Your task to perform on an android device: open the mobile data screen to see how much data has been used Image 0: 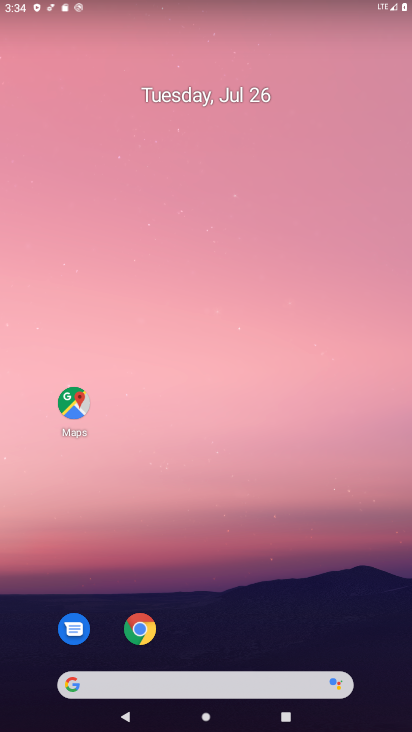
Step 0: drag from (216, 697) to (209, 248)
Your task to perform on an android device: open the mobile data screen to see how much data has been used Image 1: 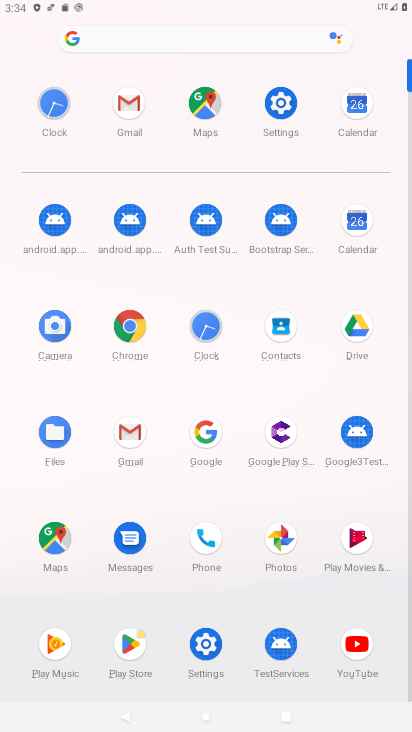
Step 1: click (293, 100)
Your task to perform on an android device: open the mobile data screen to see how much data has been used Image 2: 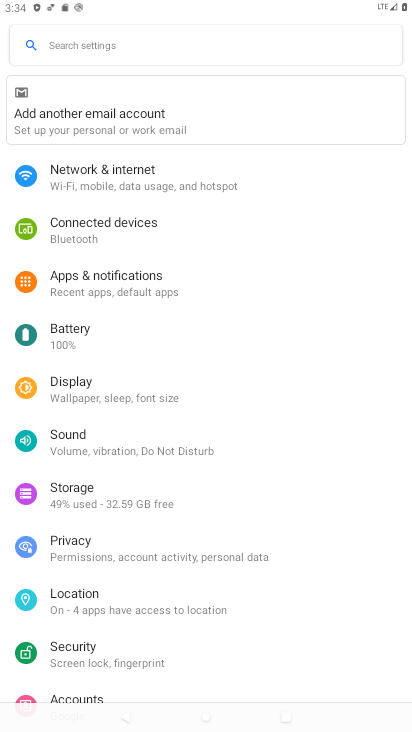
Step 2: click (83, 180)
Your task to perform on an android device: open the mobile data screen to see how much data has been used Image 3: 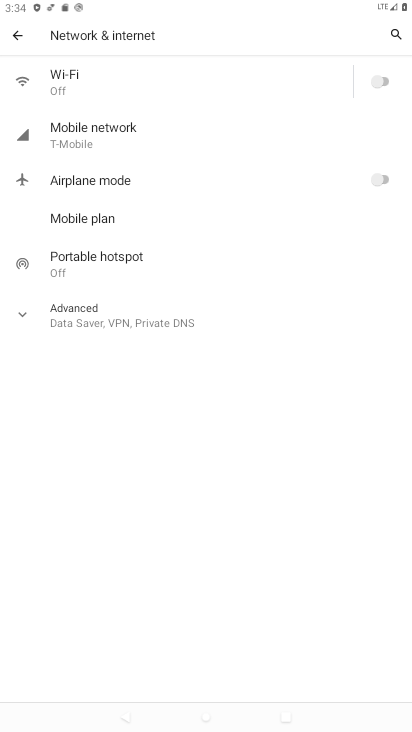
Step 3: click (71, 135)
Your task to perform on an android device: open the mobile data screen to see how much data has been used Image 4: 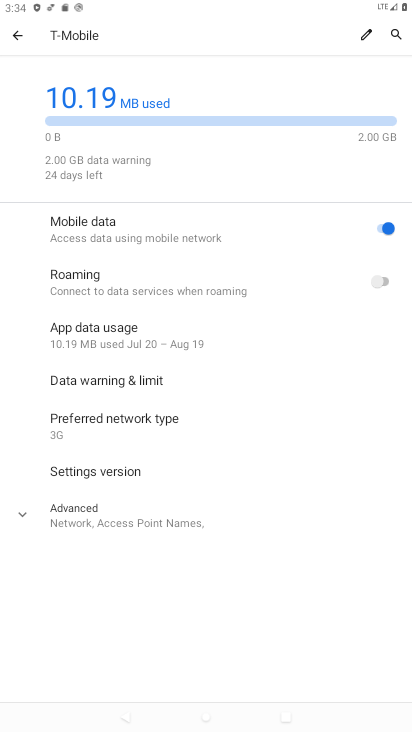
Step 4: click (101, 324)
Your task to perform on an android device: open the mobile data screen to see how much data has been used Image 5: 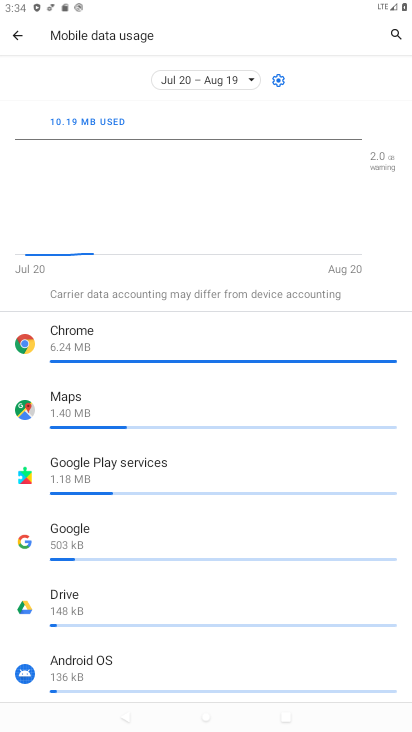
Step 5: task complete